Your task to perform on an android device: Open maps Image 0: 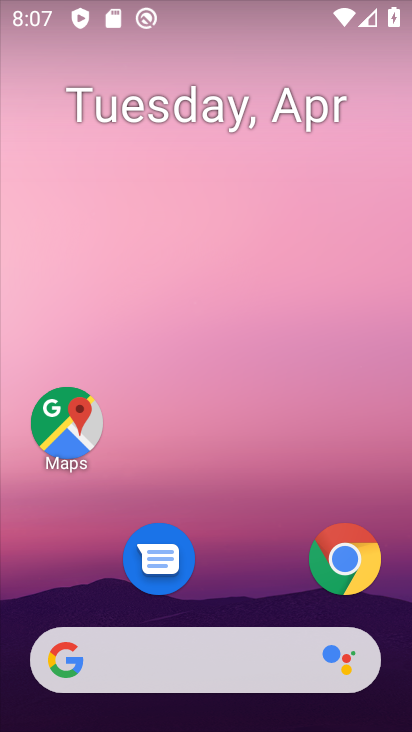
Step 0: click (76, 415)
Your task to perform on an android device: Open maps Image 1: 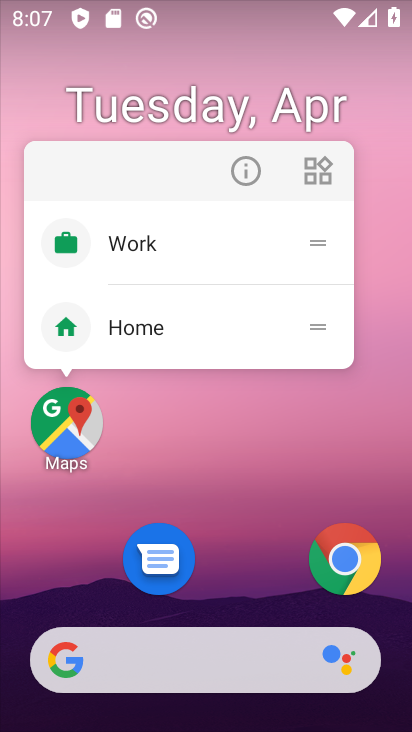
Step 1: click (78, 416)
Your task to perform on an android device: Open maps Image 2: 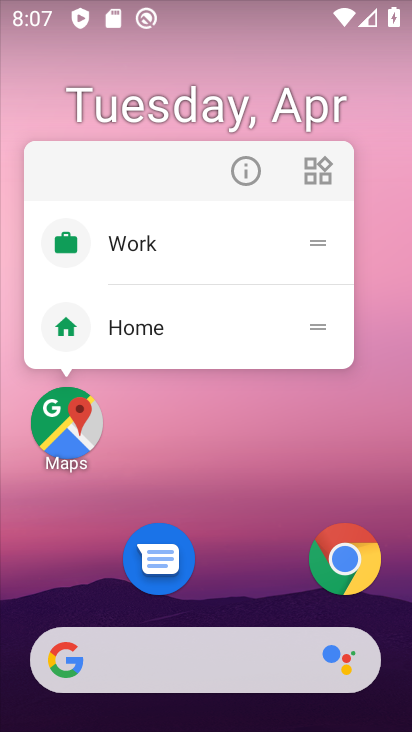
Step 2: click (78, 416)
Your task to perform on an android device: Open maps Image 3: 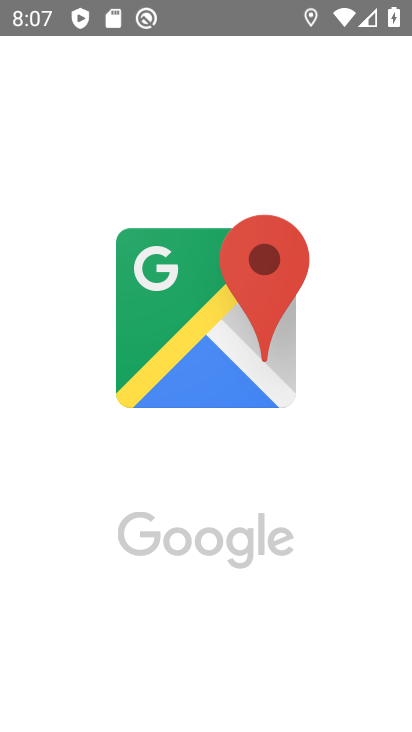
Step 3: click (282, 215)
Your task to perform on an android device: Open maps Image 4: 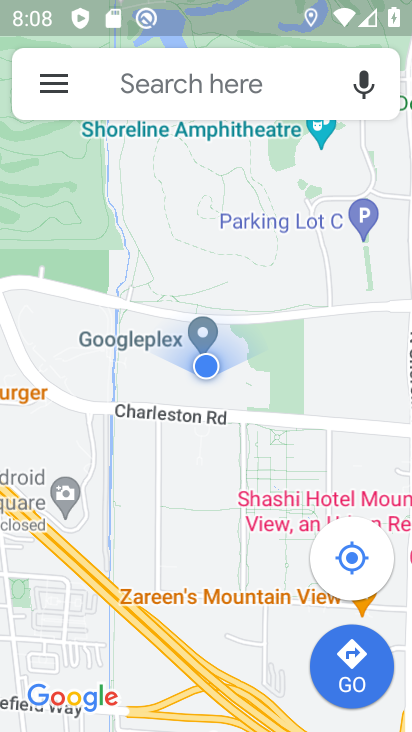
Step 4: click (356, 551)
Your task to perform on an android device: Open maps Image 5: 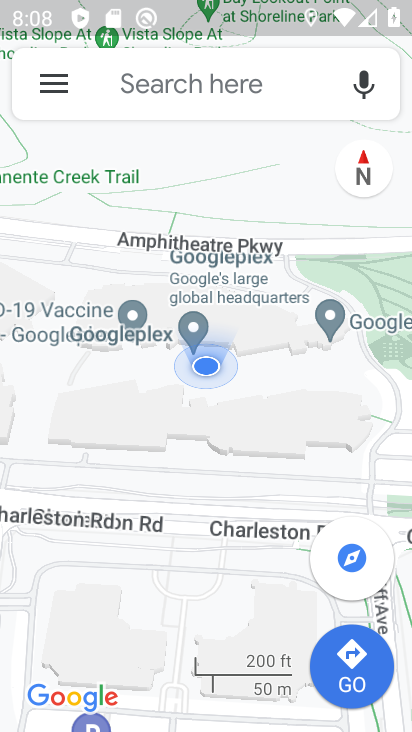
Step 5: task complete